Your task to perform on an android device: toggle airplane mode Image 0: 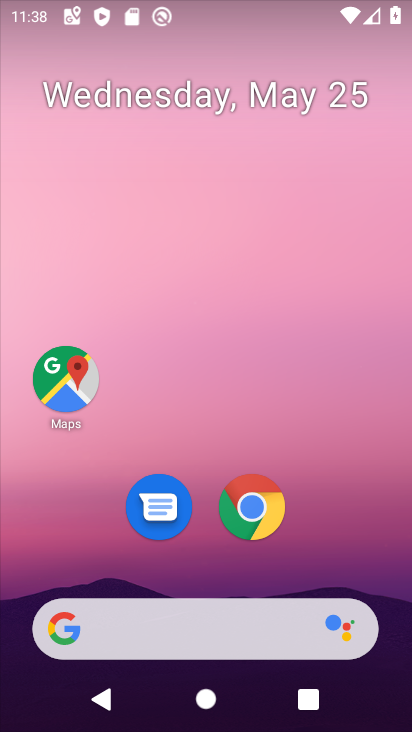
Step 0: drag from (326, 523) to (316, 51)
Your task to perform on an android device: toggle airplane mode Image 1: 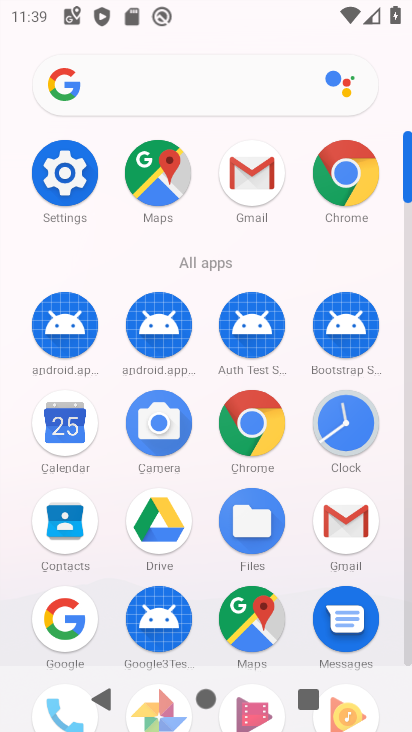
Step 1: click (65, 173)
Your task to perform on an android device: toggle airplane mode Image 2: 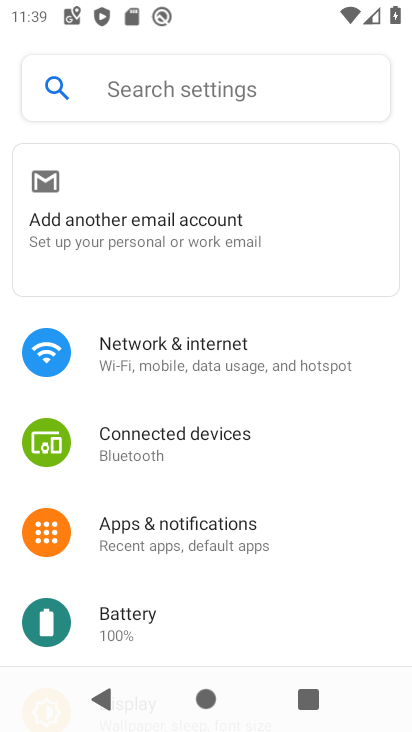
Step 2: click (156, 356)
Your task to perform on an android device: toggle airplane mode Image 3: 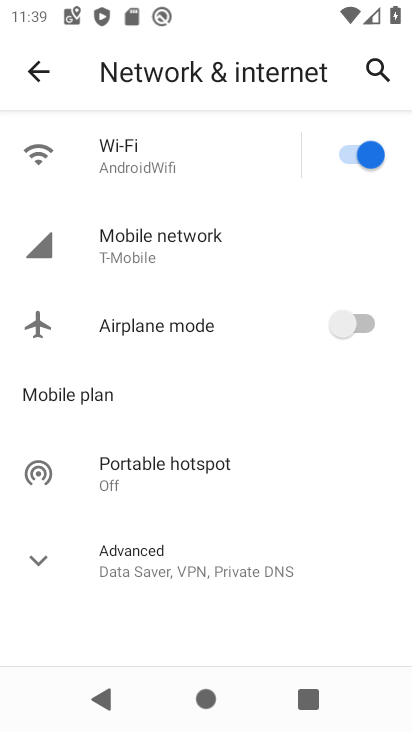
Step 3: click (351, 328)
Your task to perform on an android device: toggle airplane mode Image 4: 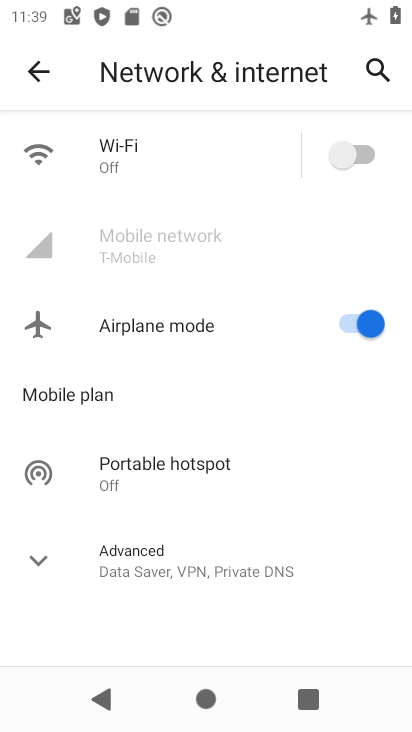
Step 4: task complete